Your task to perform on an android device: turn on airplane mode Image 0: 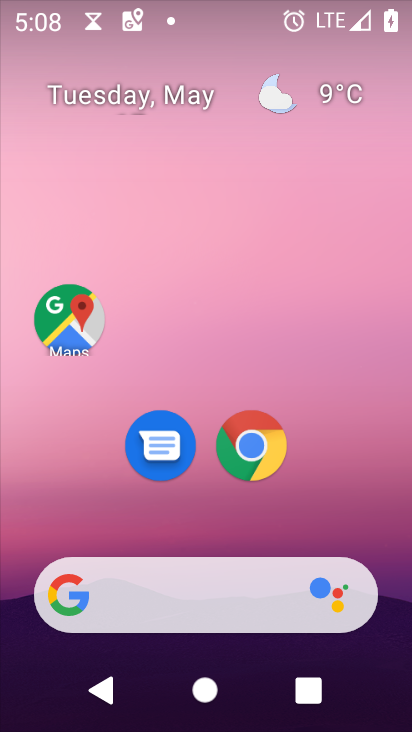
Step 0: drag from (315, 551) to (315, 93)
Your task to perform on an android device: turn on airplane mode Image 1: 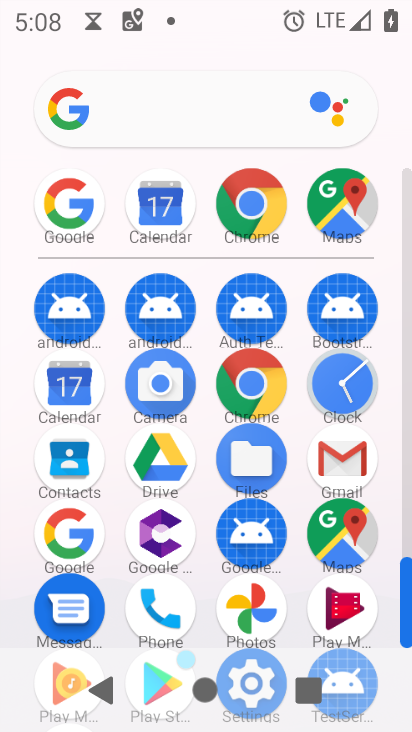
Step 1: drag from (295, 622) to (323, 292)
Your task to perform on an android device: turn on airplane mode Image 2: 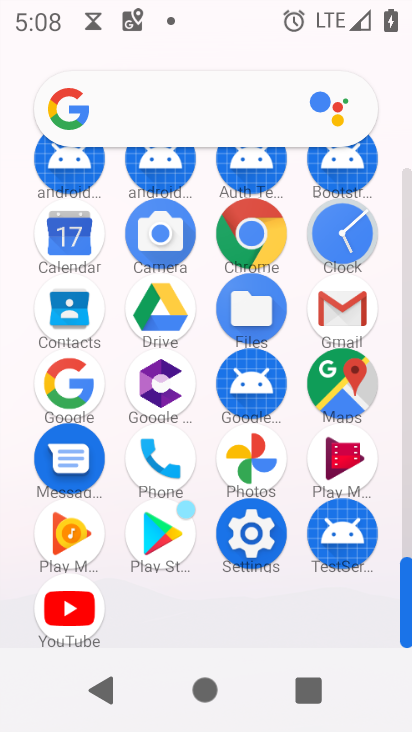
Step 2: click (254, 522)
Your task to perform on an android device: turn on airplane mode Image 3: 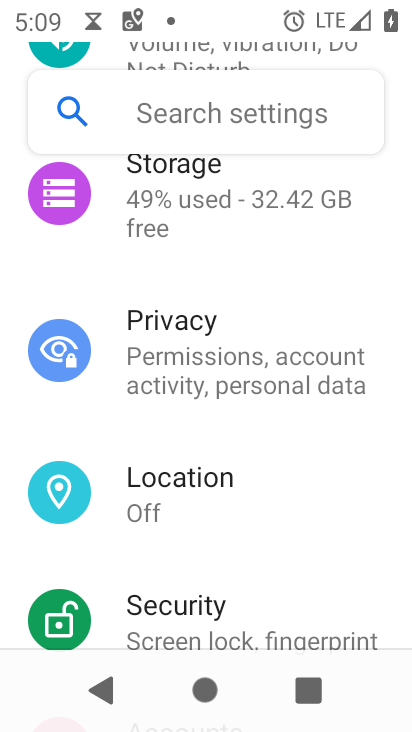
Step 3: drag from (334, 285) to (403, 725)
Your task to perform on an android device: turn on airplane mode Image 4: 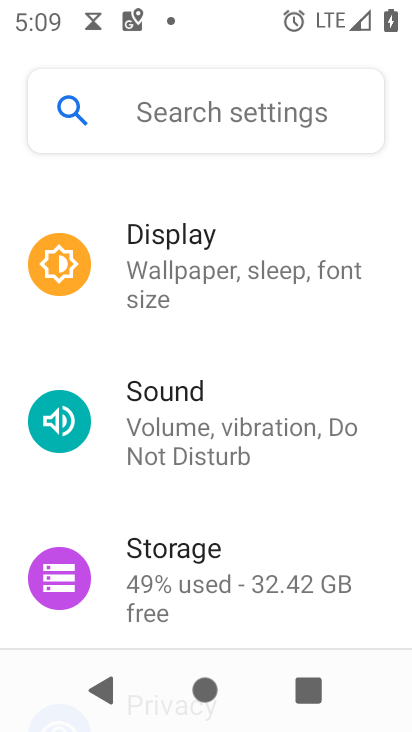
Step 4: drag from (311, 315) to (385, 657)
Your task to perform on an android device: turn on airplane mode Image 5: 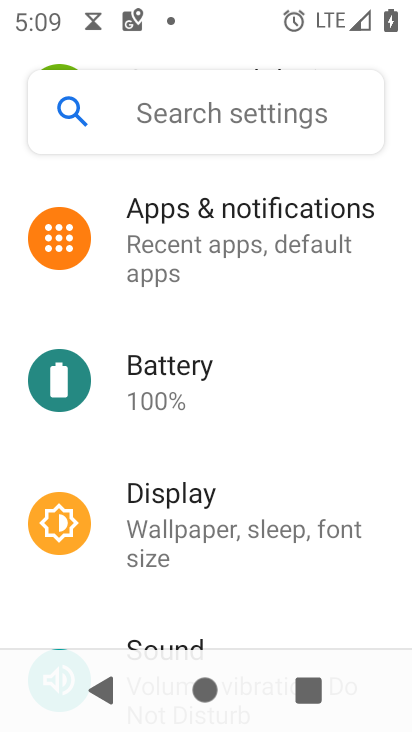
Step 5: drag from (263, 292) to (343, 640)
Your task to perform on an android device: turn on airplane mode Image 6: 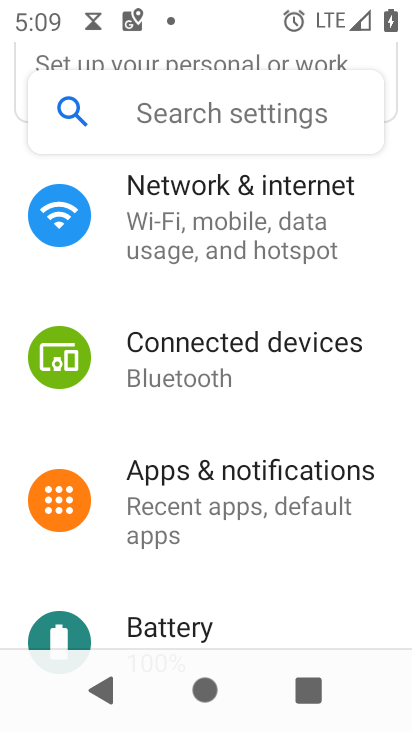
Step 6: click (306, 231)
Your task to perform on an android device: turn on airplane mode Image 7: 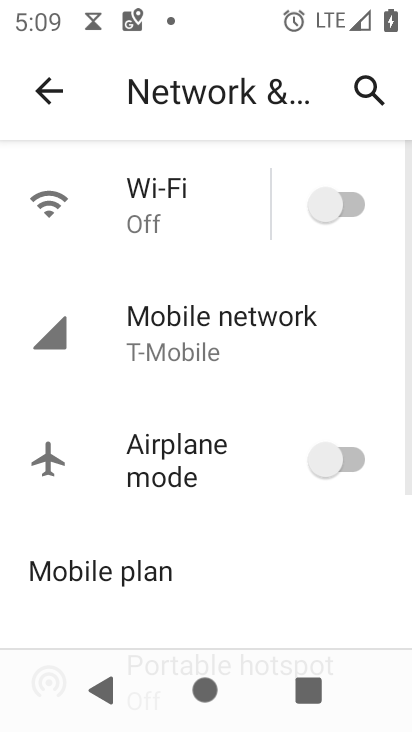
Step 7: click (350, 455)
Your task to perform on an android device: turn on airplane mode Image 8: 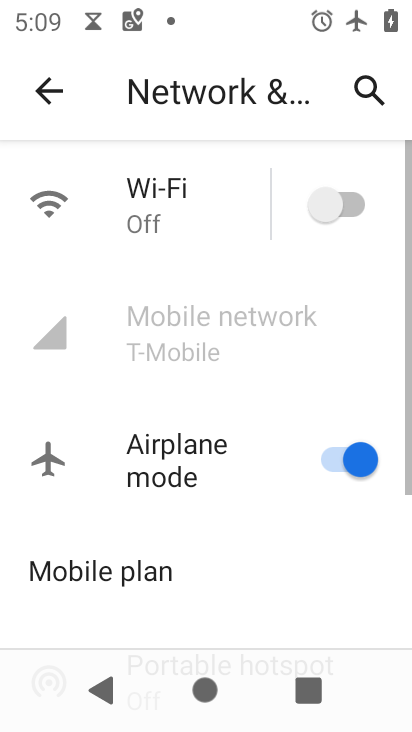
Step 8: task complete